Your task to perform on an android device: set an alarm Image 0: 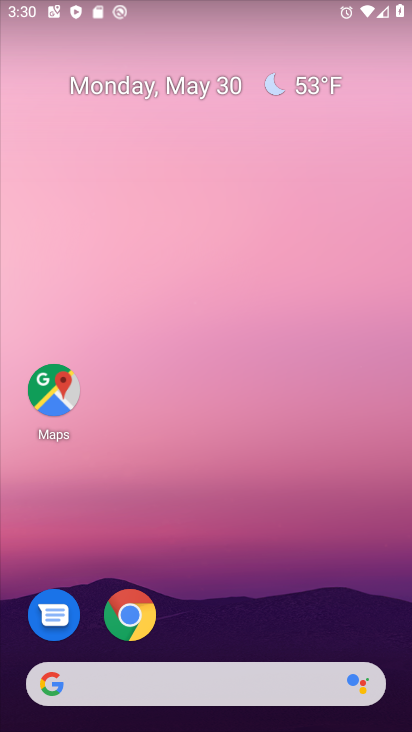
Step 0: drag from (269, 649) to (273, 290)
Your task to perform on an android device: set an alarm Image 1: 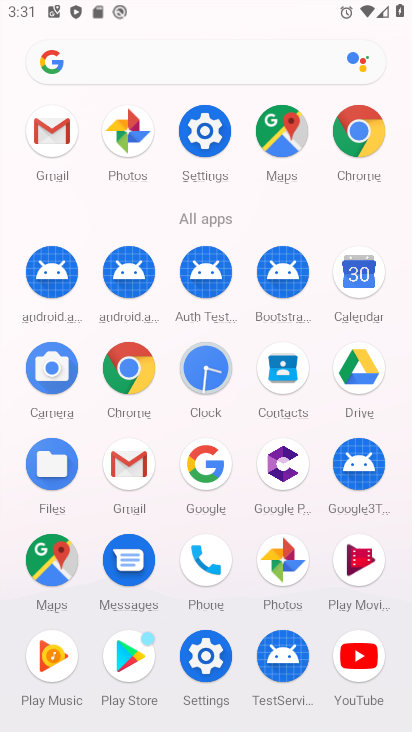
Step 1: click (203, 368)
Your task to perform on an android device: set an alarm Image 2: 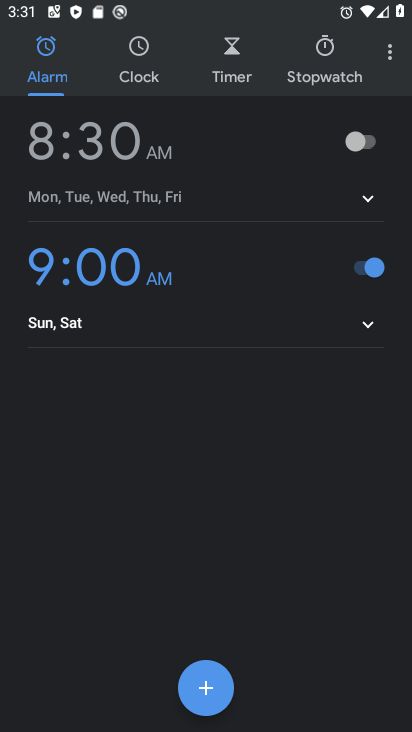
Step 2: click (145, 66)
Your task to perform on an android device: set an alarm Image 3: 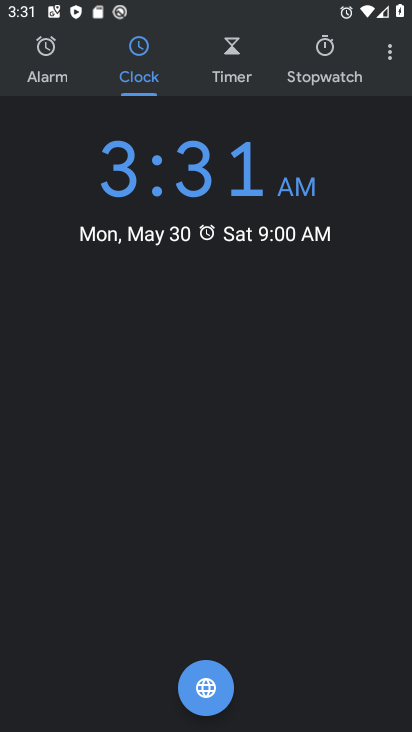
Step 3: click (69, 67)
Your task to perform on an android device: set an alarm Image 4: 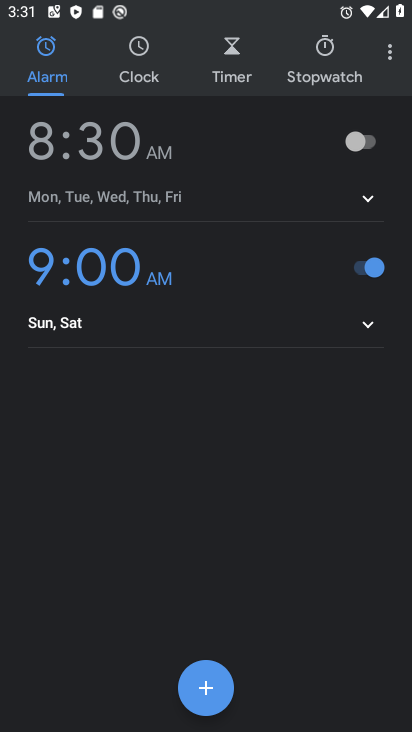
Step 4: click (362, 158)
Your task to perform on an android device: set an alarm Image 5: 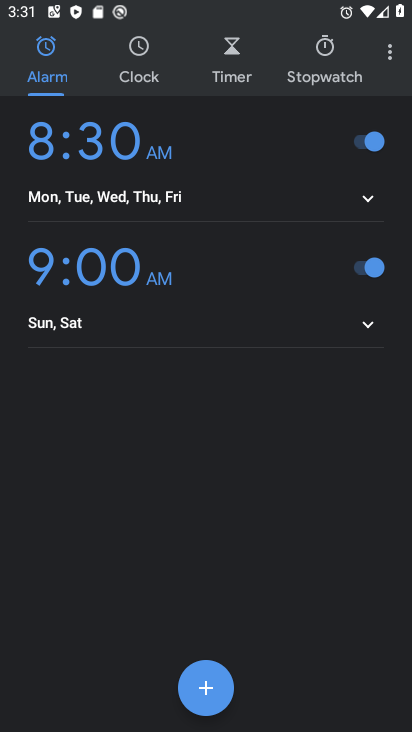
Step 5: task complete